Your task to perform on an android device: Go to Android settings Image 0: 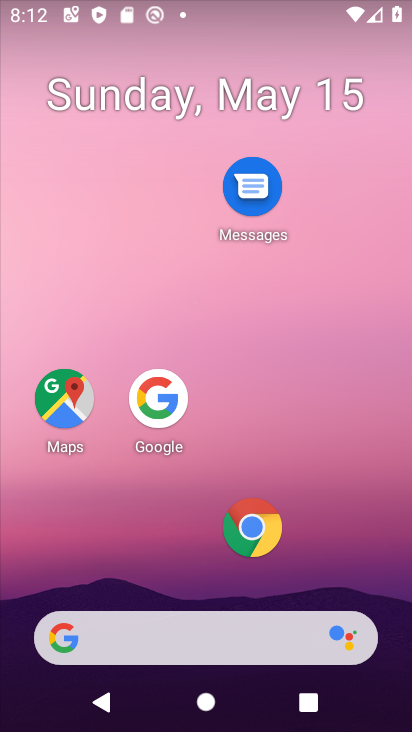
Step 0: drag from (160, 646) to (285, 259)
Your task to perform on an android device: Go to Android settings Image 1: 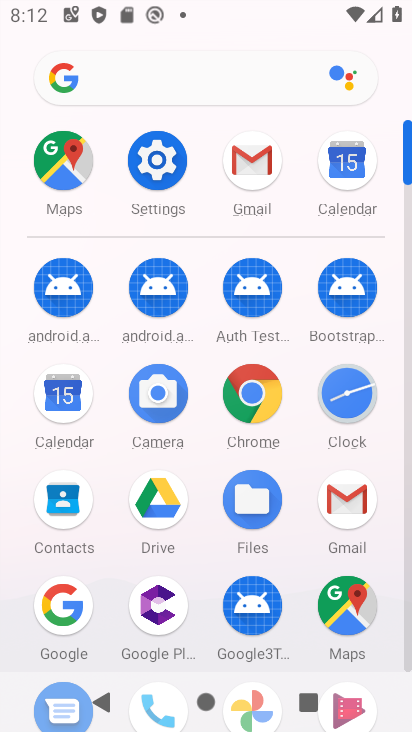
Step 1: click (153, 165)
Your task to perform on an android device: Go to Android settings Image 2: 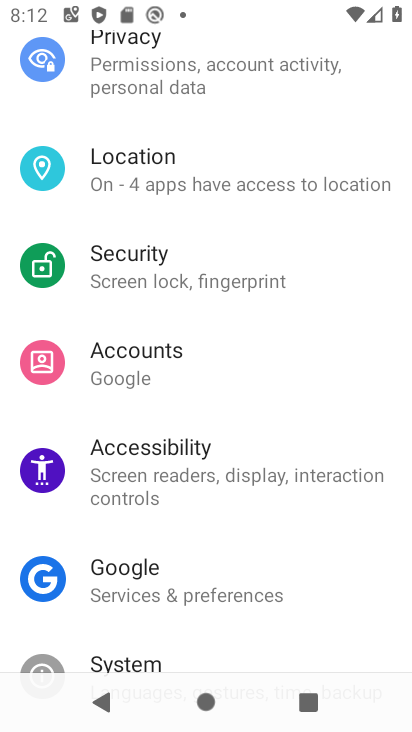
Step 2: task complete